Your task to perform on an android device: Open the web browser Image 0: 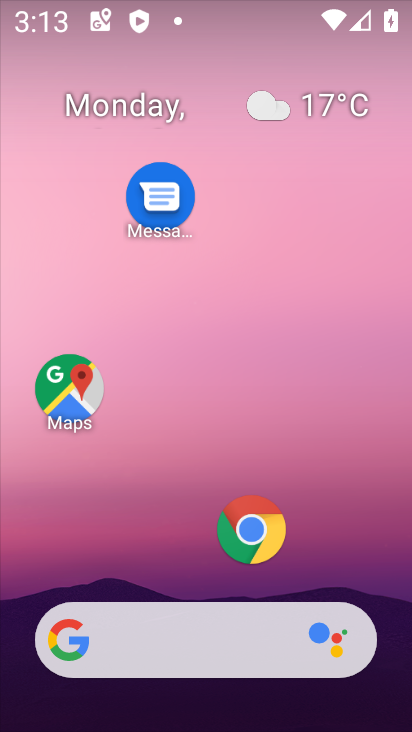
Step 0: press home button
Your task to perform on an android device: Open the web browser Image 1: 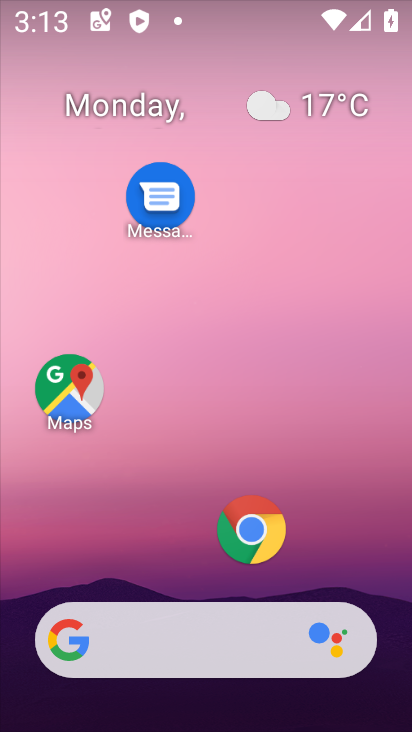
Step 1: click (248, 523)
Your task to perform on an android device: Open the web browser Image 2: 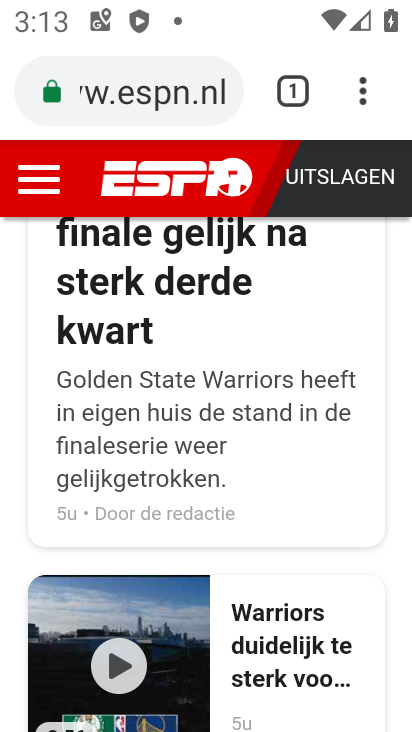
Step 2: press home button
Your task to perform on an android device: Open the web browser Image 3: 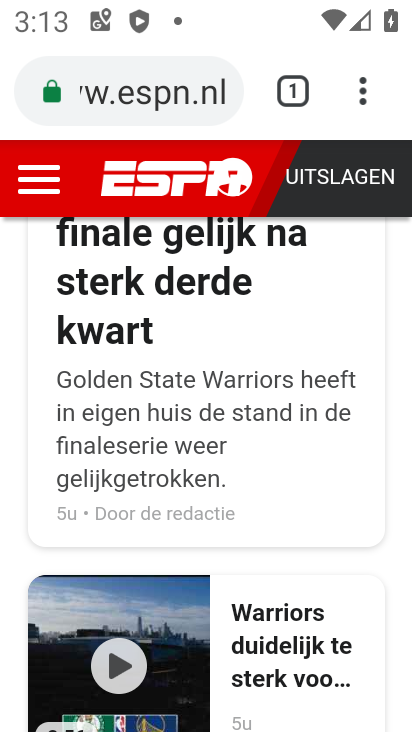
Step 3: press home button
Your task to perform on an android device: Open the web browser Image 4: 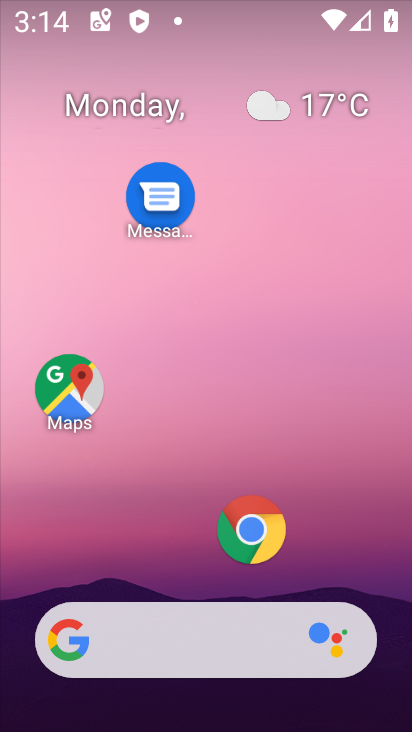
Step 4: click (244, 520)
Your task to perform on an android device: Open the web browser Image 5: 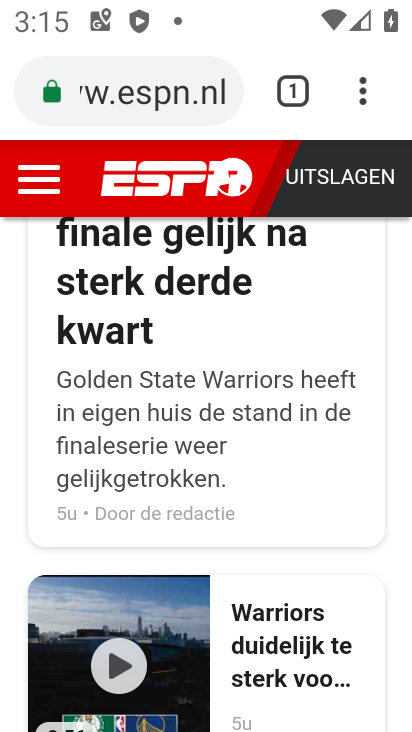
Step 5: click (290, 88)
Your task to perform on an android device: Open the web browser Image 6: 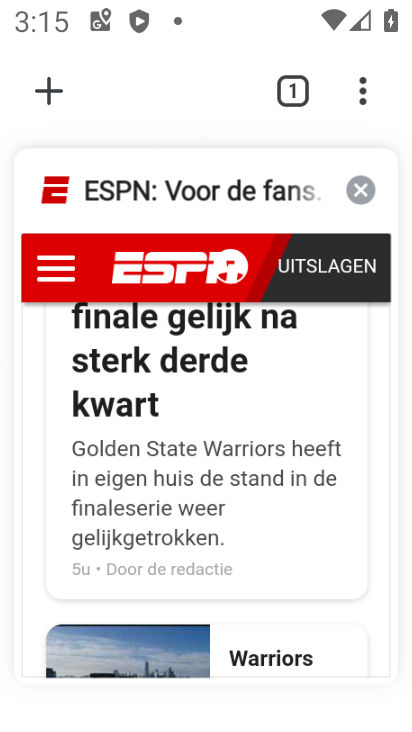
Step 6: click (220, 363)
Your task to perform on an android device: Open the web browser Image 7: 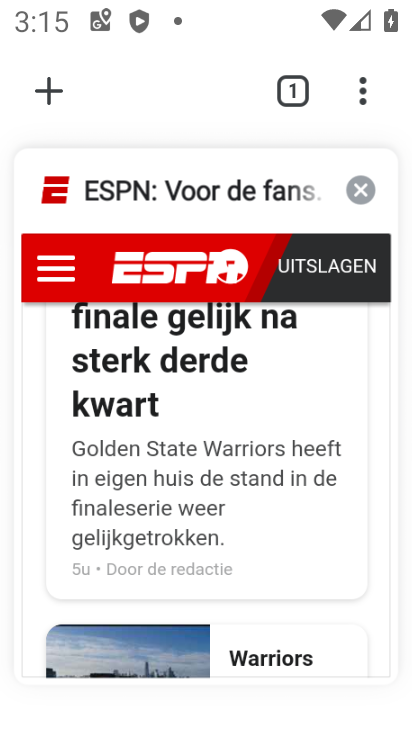
Step 7: click (45, 86)
Your task to perform on an android device: Open the web browser Image 8: 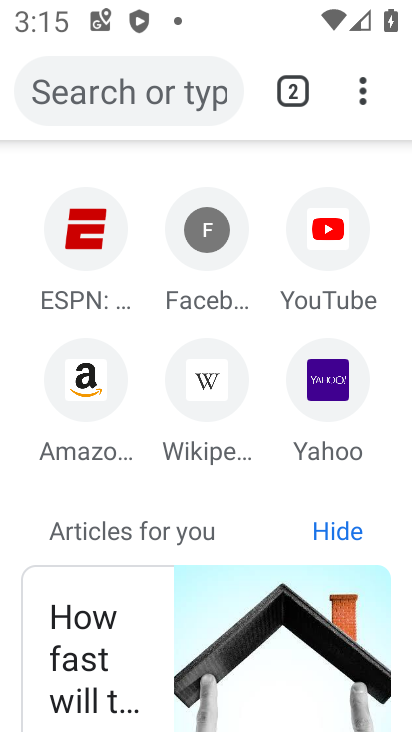
Step 8: task complete